Your task to perform on an android device: Go to CNN.com Image 0: 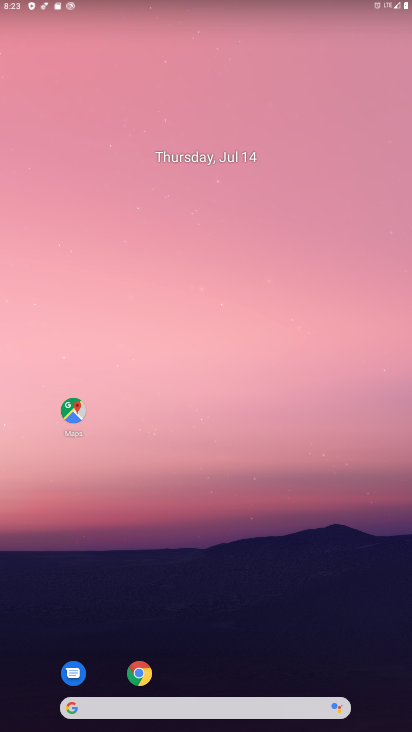
Step 0: click (141, 673)
Your task to perform on an android device: Go to CNN.com Image 1: 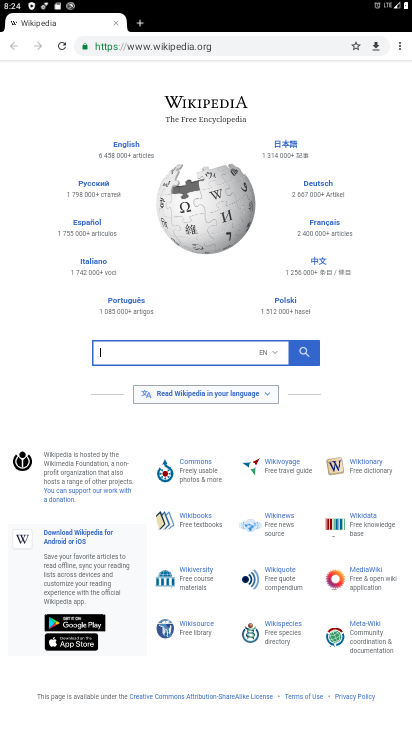
Step 1: click (277, 45)
Your task to perform on an android device: Go to CNN.com Image 2: 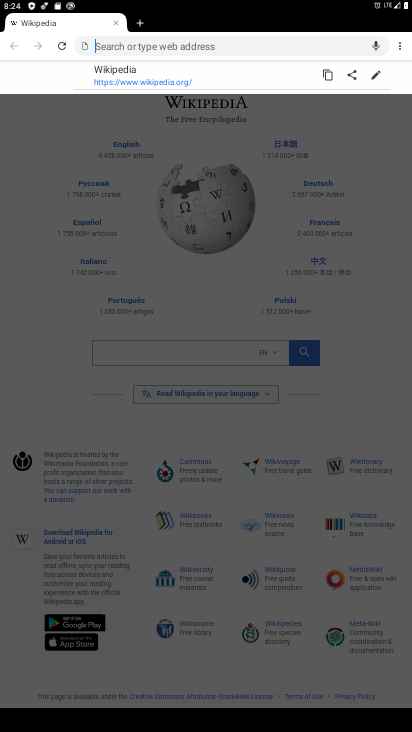
Step 2: type "CNN.com"
Your task to perform on an android device: Go to CNN.com Image 3: 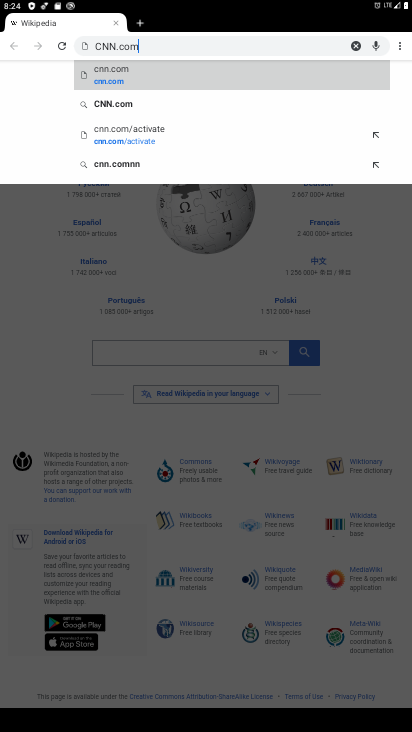
Step 3: click (122, 103)
Your task to perform on an android device: Go to CNN.com Image 4: 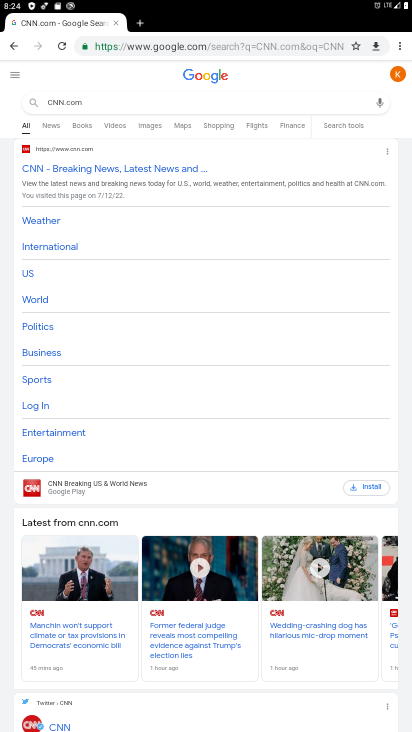
Step 4: click (91, 168)
Your task to perform on an android device: Go to CNN.com Image 5: 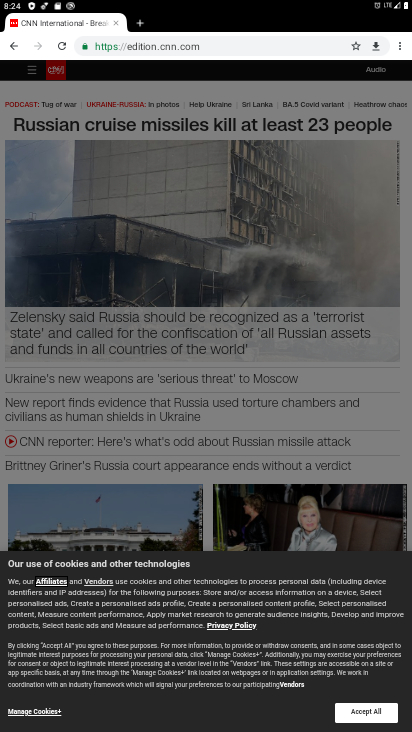
Step 5: task complete